Your task to perform on an android device: turn off picture-in-picture Image 0: 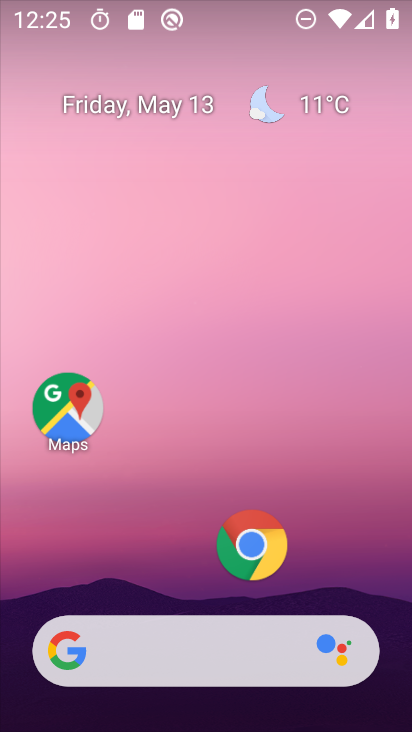
Step 0: click (200, 63)
Your task to perform on an android device: turn off picture-in-picture Image 1: 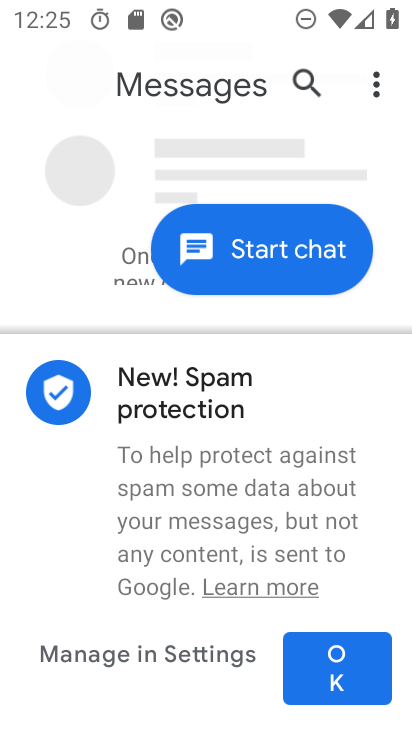
Step 1: press home button
Your task to perform on an android device: turn off picture-in-picture Image 2: 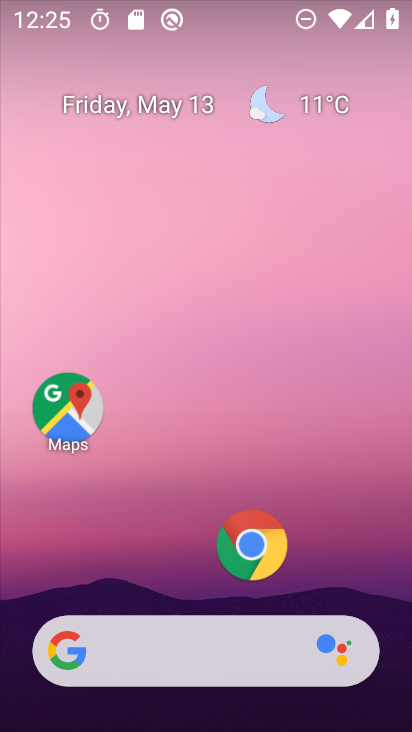
Step 2: click (254, 547)
Your task to perform on an android device: turn off picture-in-picture Image 3: 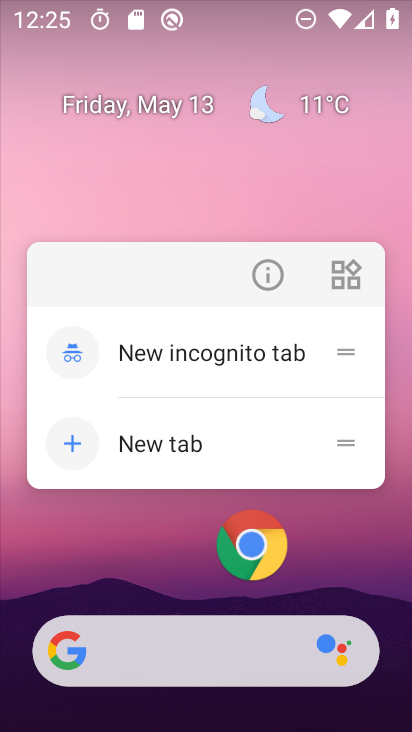
Step 3: click (263, 259)
Your task to perform on an android device: turn off picture-in-picture Image 4: 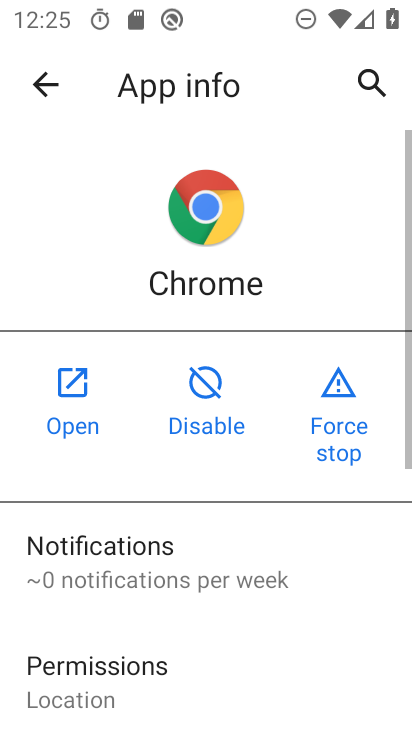
Step 4: drag from (206, 624) to (256, 54)
Your task to perform on an android device: turn off picture-in-picture Image 5: 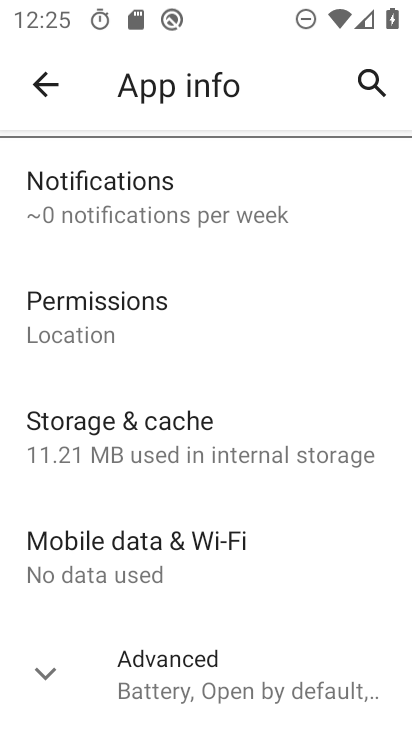
Step 5: click (46, 666)
Your task to perform on an android device: turn off picture-in-picture Image 6: 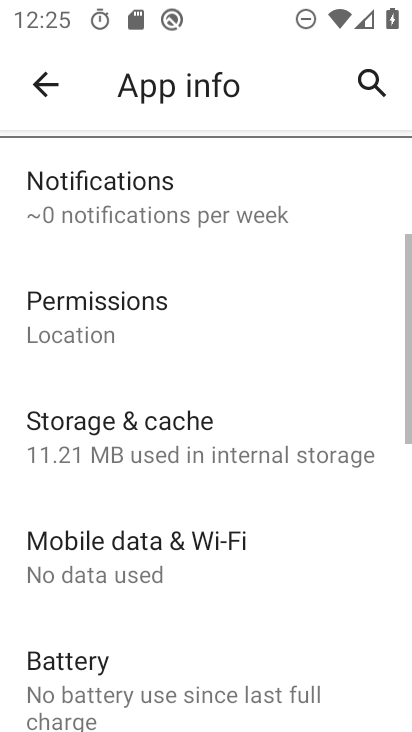
Step 6: drag from (171, 657) to (208, 116)
Your task to perform on an android device: turn off picture-in-picture Image 7: 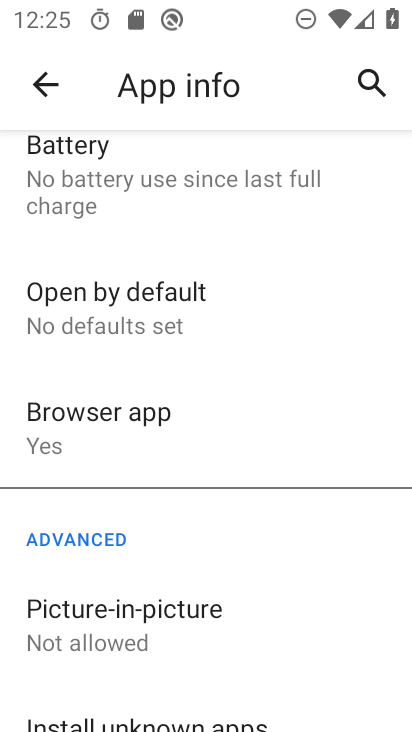
Step 7: click (183, 631)
Your task to perform on an android device: turn off picture-in-picture Image 8: 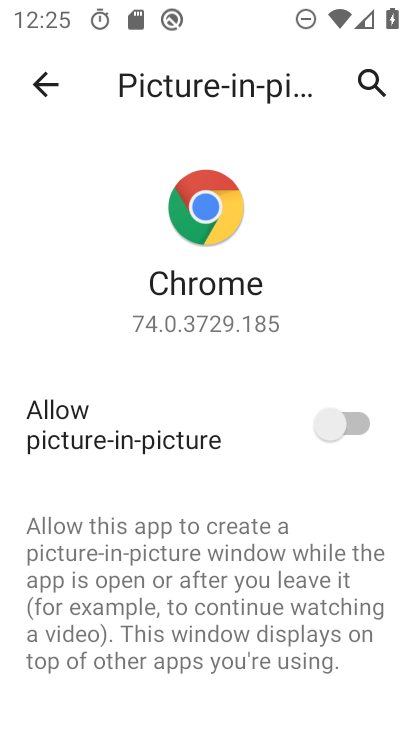
Step 8: task complete